Your task to perform on an android device: Search for Mexican restaurants on Maps Image 0: 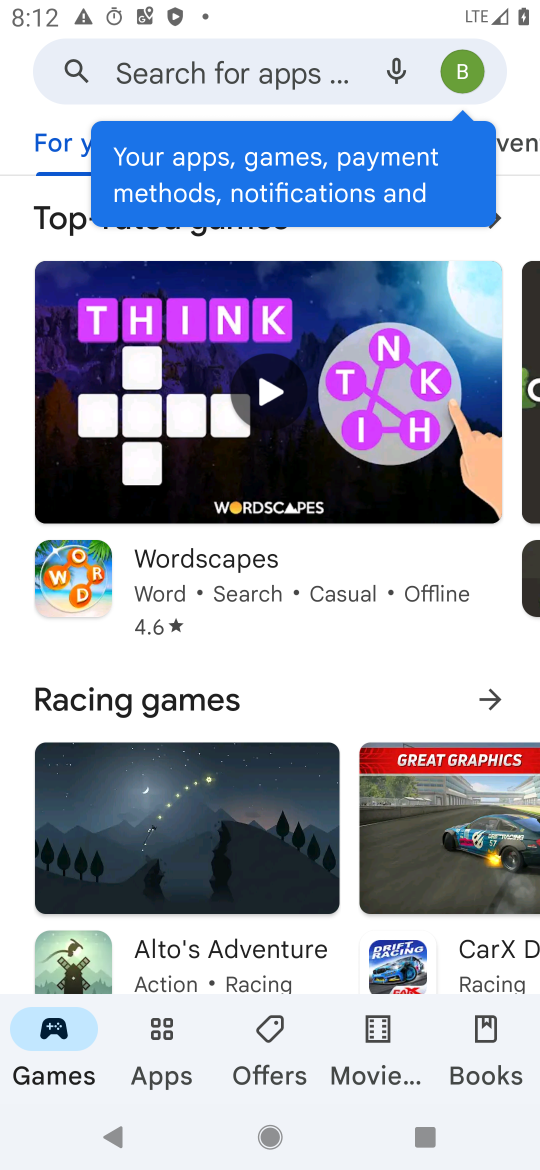
Step 0: press home button
Your task to perform on an android device: Search for Mexican restaurants on Maps Image 1: 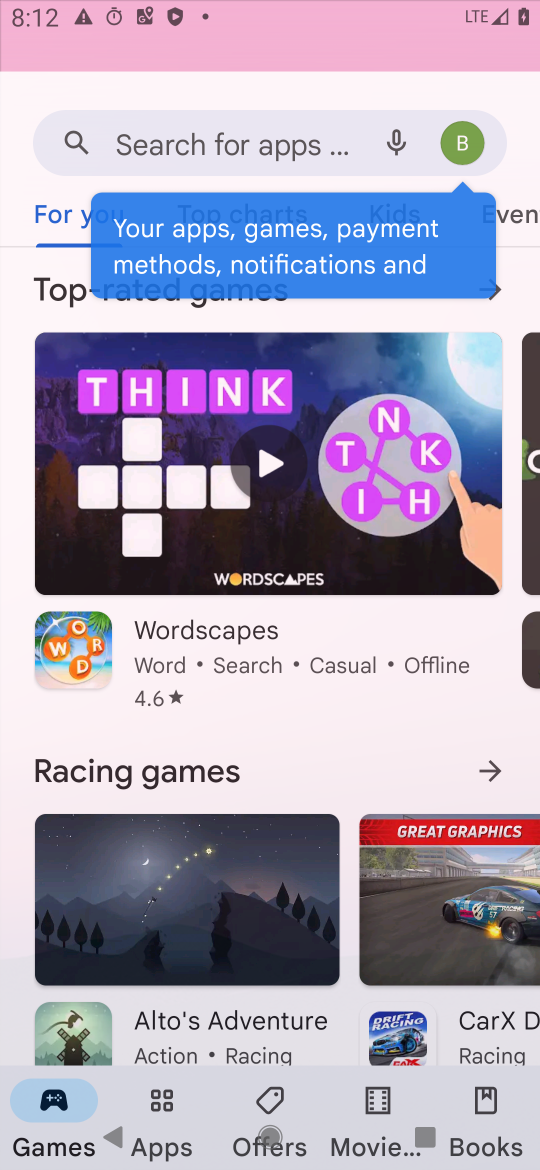
Step 1: drag from (292, 939) to (414, 120)
Your task to perform on an android device: Search for Mexican restaurants on Maps Image 2: 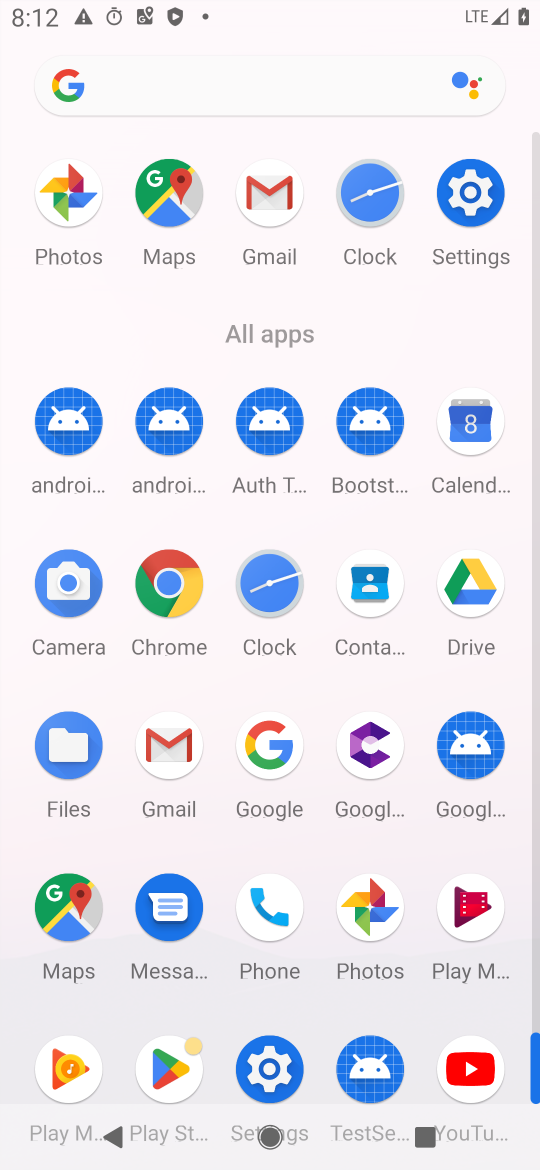
Step 2: click (173, 179)
Your task to perform on an android device: Search for Mexican restaurants on Maps Image 3: 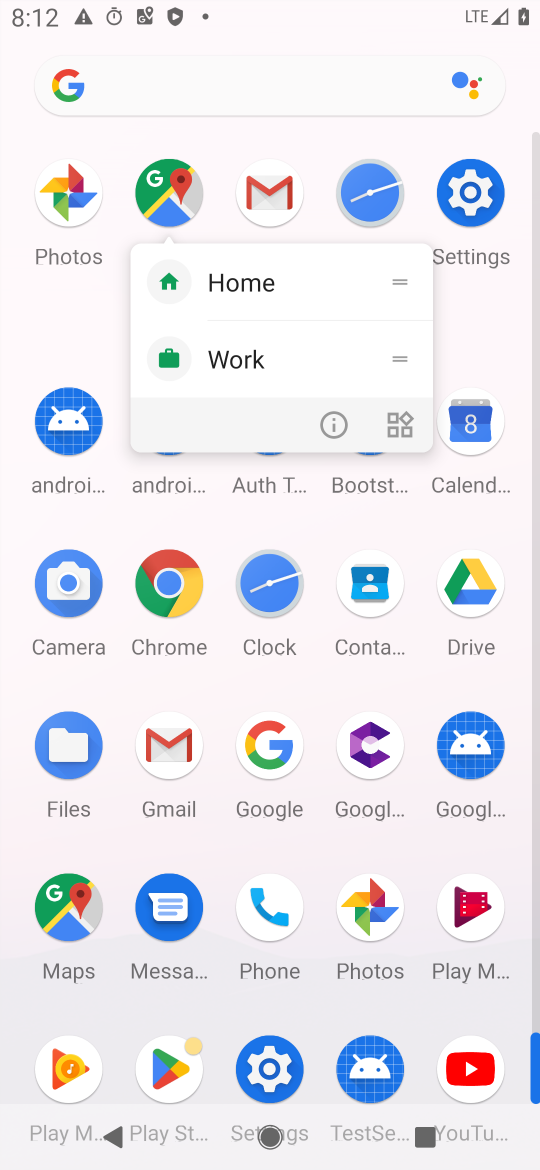
Step 3: click (315, 426)
Your task to perform on an android device: Search for Mexican restaurants on Maps Image 4: 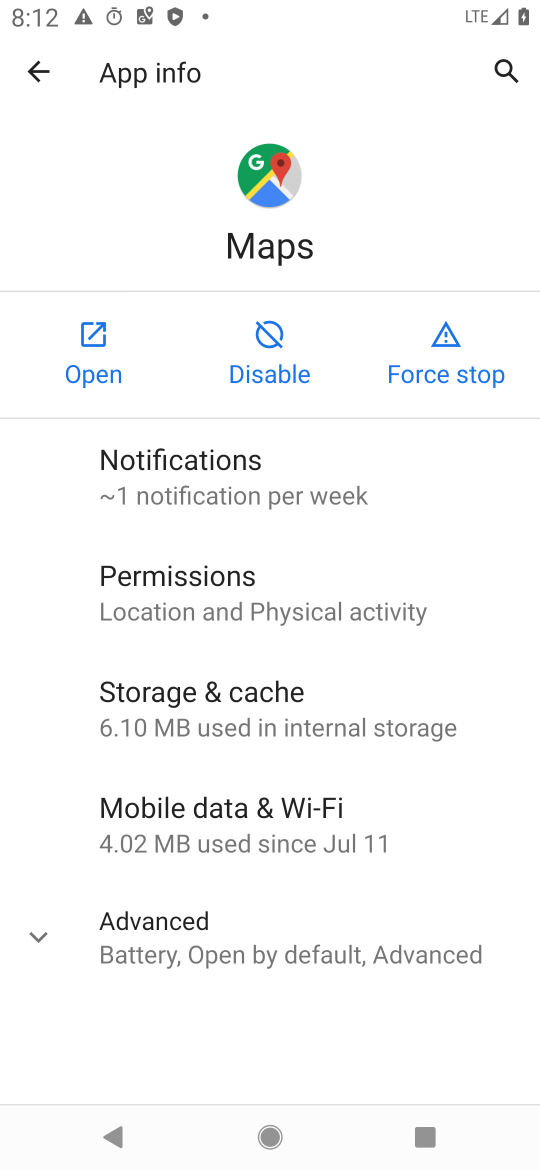
Step 4: click (99, 323)
Your task to perform on an android device: Search for Mexican restaurants on Maps Image 5: 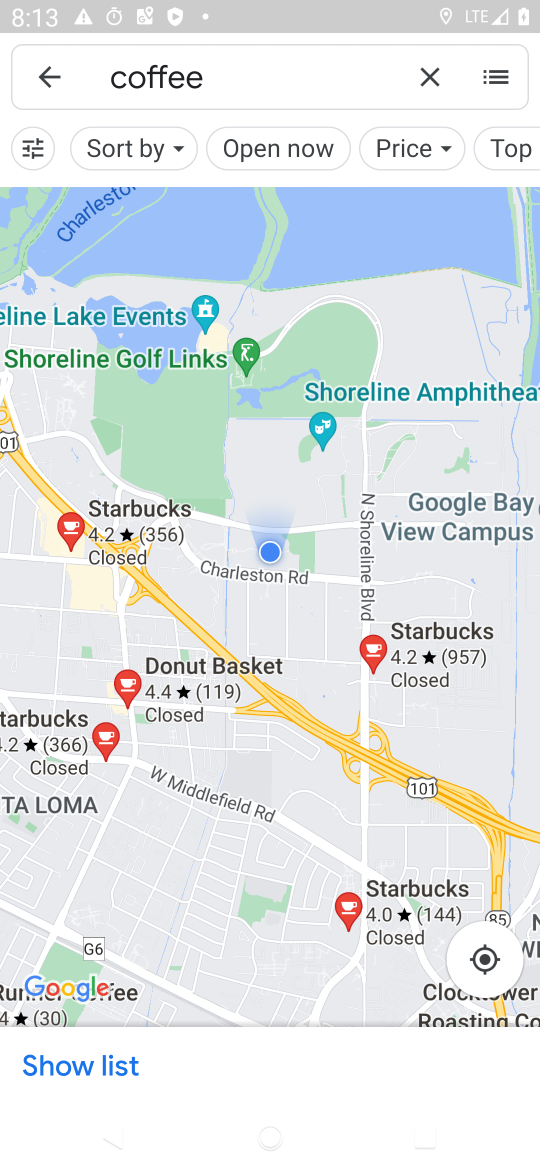
Step 5: click (424, 76)
Your task to perform on an android device: Search for Mexican restaurants on Maps Image 6: 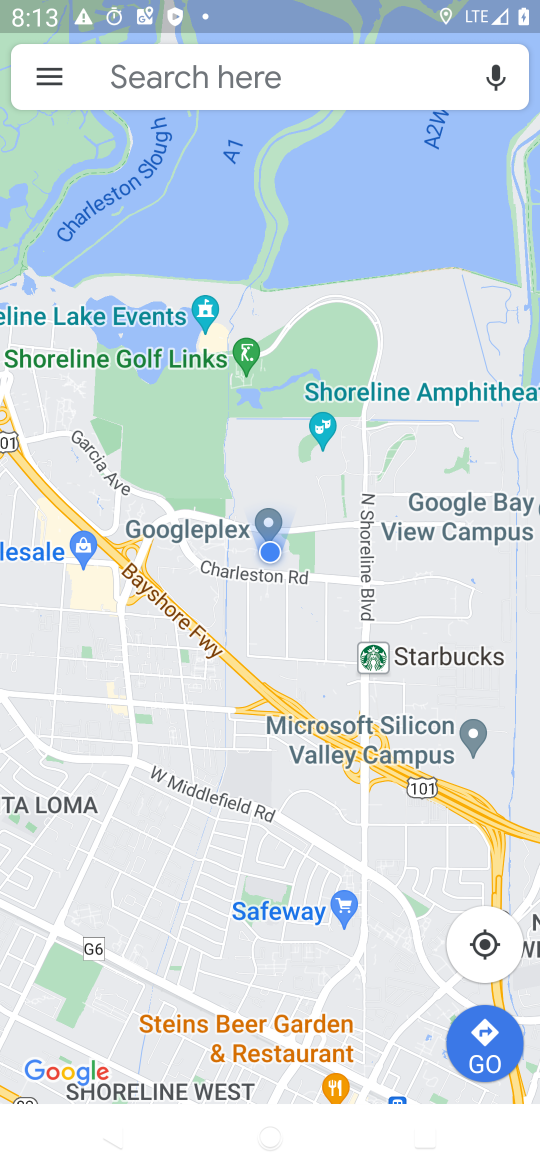
Step 6: click (116, 83)
Your task to perform on an android device: Search for Mexican restaurants on Maps Image 7: 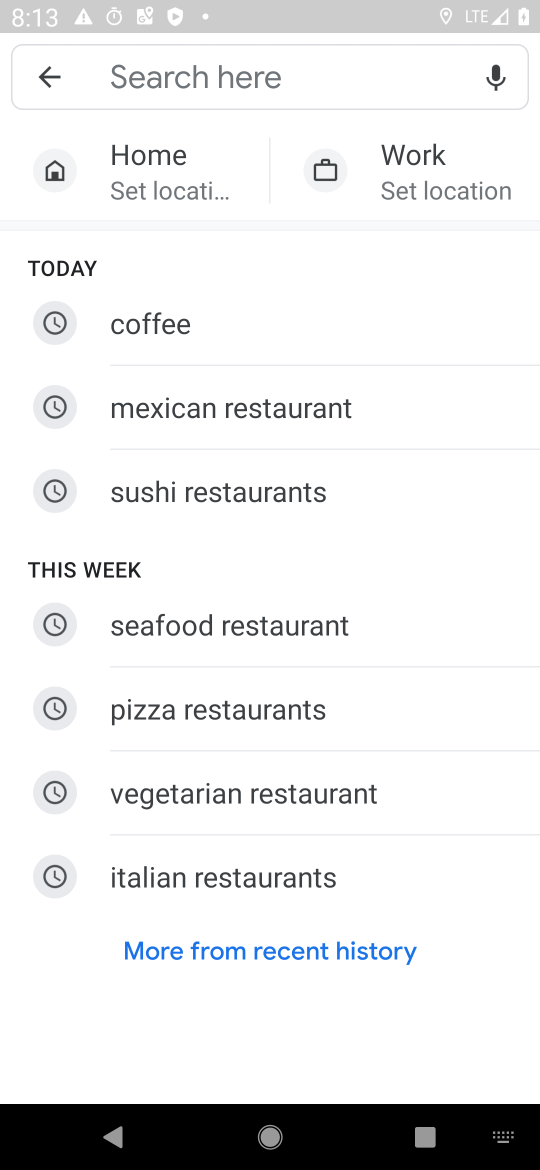
Step 7: click (174, 411)
Your task to perform on an android device: Search for Mexican restaurants on Maps Image 8: 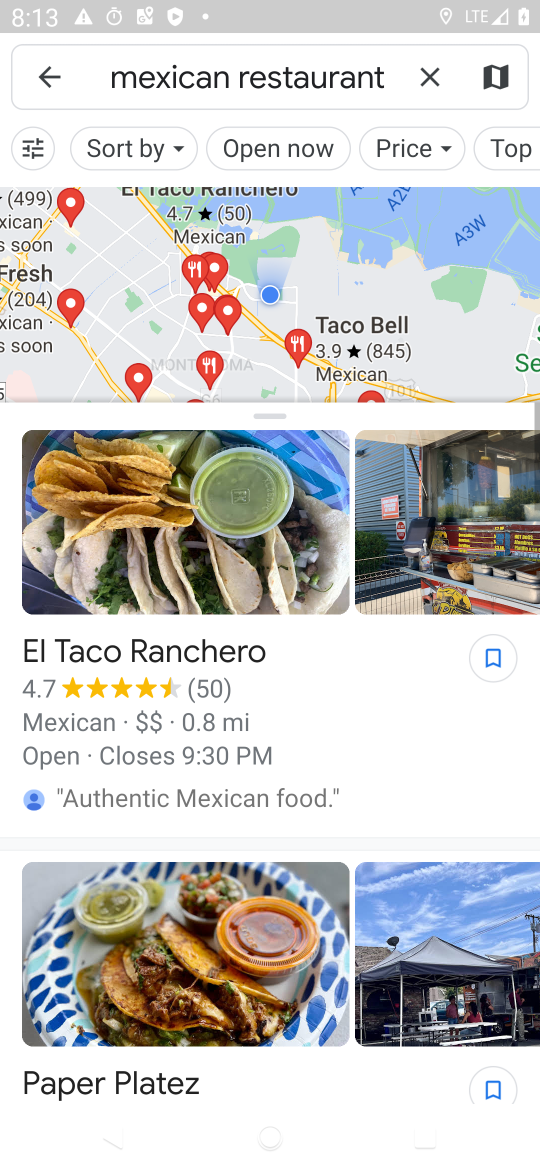
Step 8: task complete